Your task to perform on an android device: toggle data saver in the chrome app Image 0: 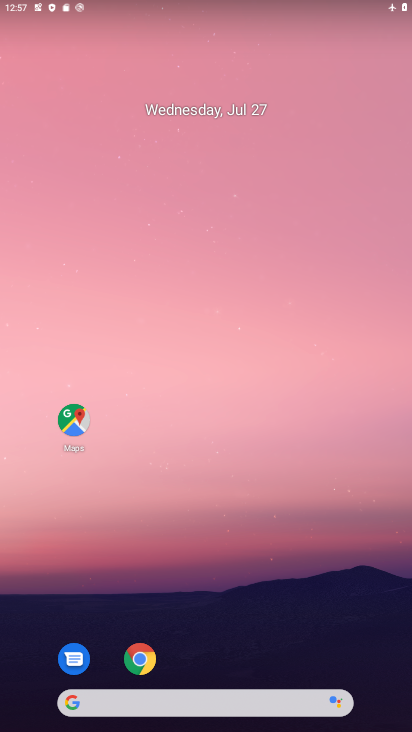
Step 0: click (186, 498)
Your task to perform on an android device: toggle data saver in the chrome app Image 1: 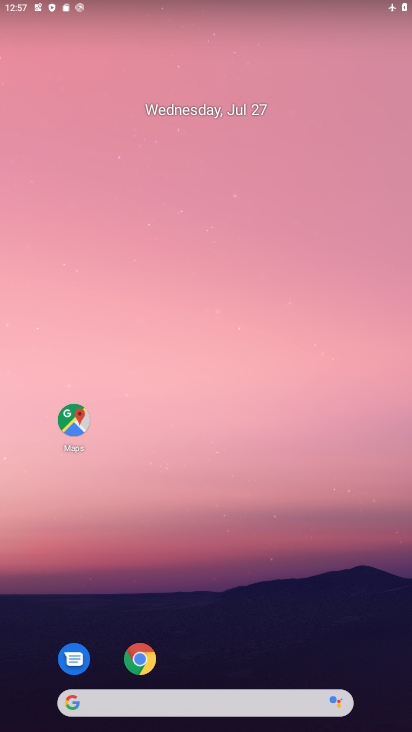
Step 1: click (302, 43)
Your task to perform on an android device: toggle data saver in the chrome app Image 2: 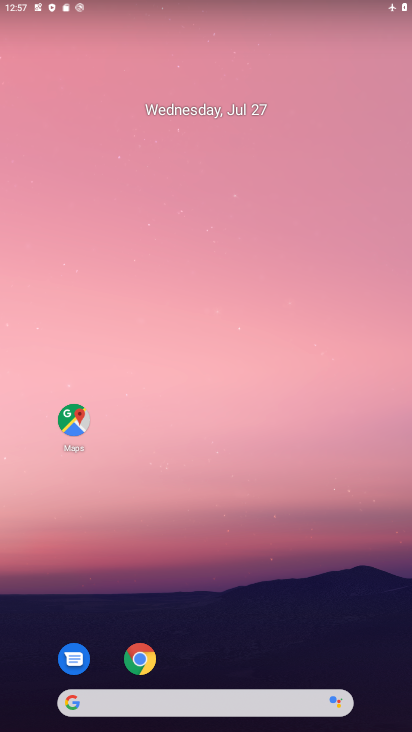
Step 2: drag from (216, 626) to (201, 73)
Your task to perform on an android device: toggle data saver in the chrome app Image 3: 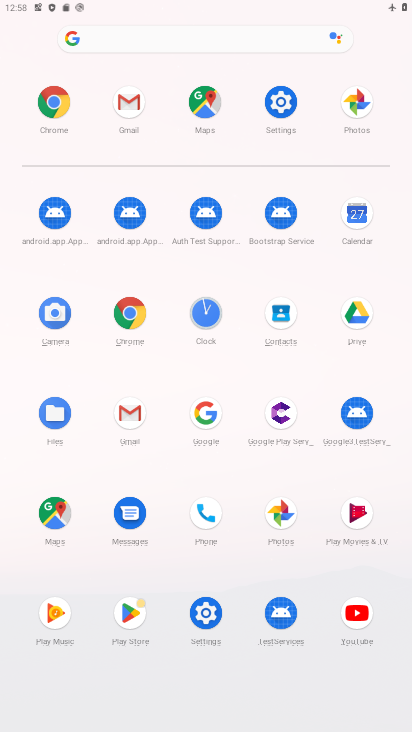
Step 3: click (135, 334)
Your task to perform on an android device: toggle data saver in the chrome app Image 4: 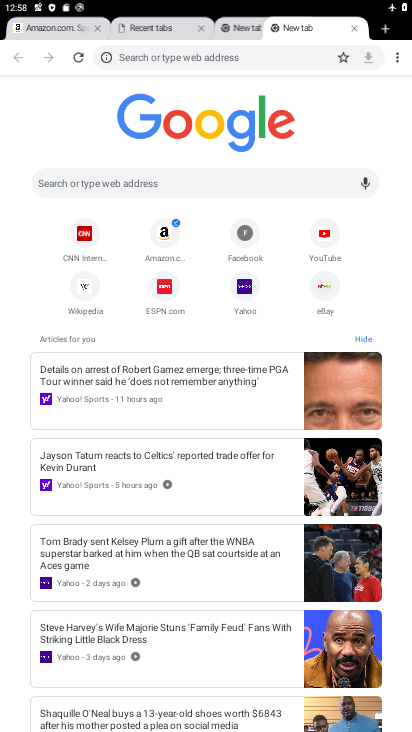
Step 4: click (399, 64)
Your task to perform on an android device: toggle data saver in the chrome app Image 5: 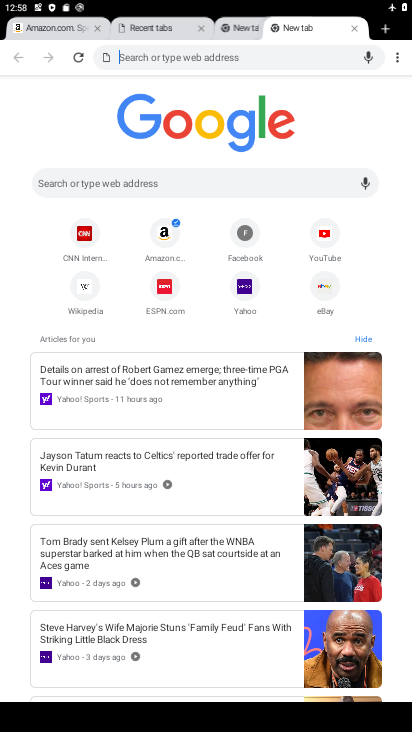
Step 5: click (400, 57)
Your task to perform on an android device: toggle data saver in the chrome app Image 6: 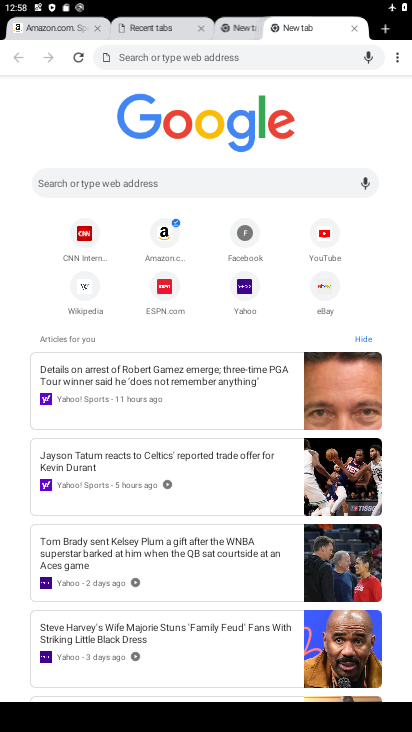
Step 6: click (400, 55)
Your task to perform on an android device: toggle data saver in the chrome app Image 7: 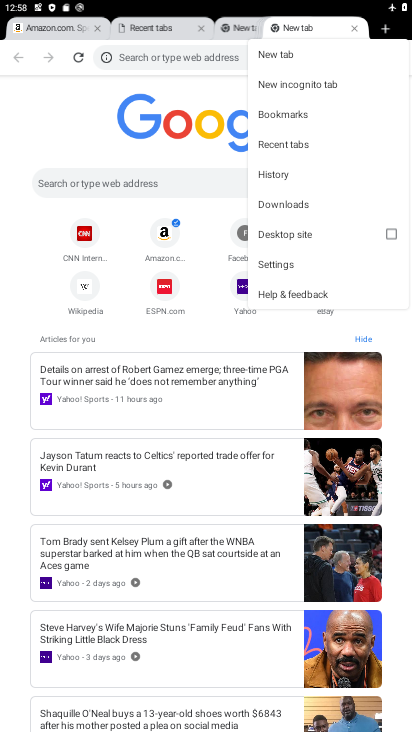
Step 7: click (291, 262)
Your task to perform on an android device: toggle data saver in the chrome app Image 8: 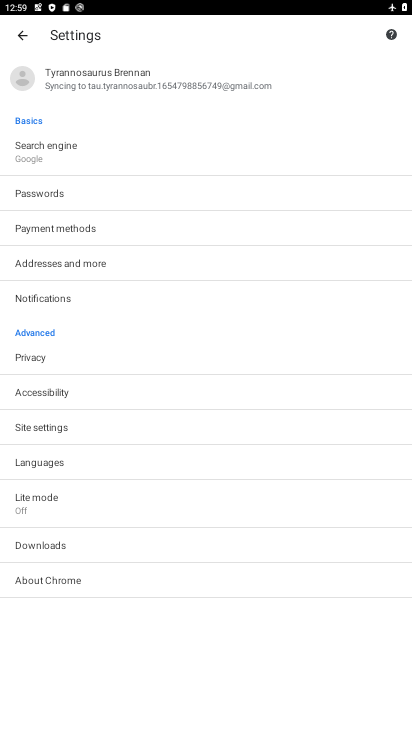
Step 8: click (130, 507)
Your task to perform on an android device: toggle data saver in the chrome app Image 9: 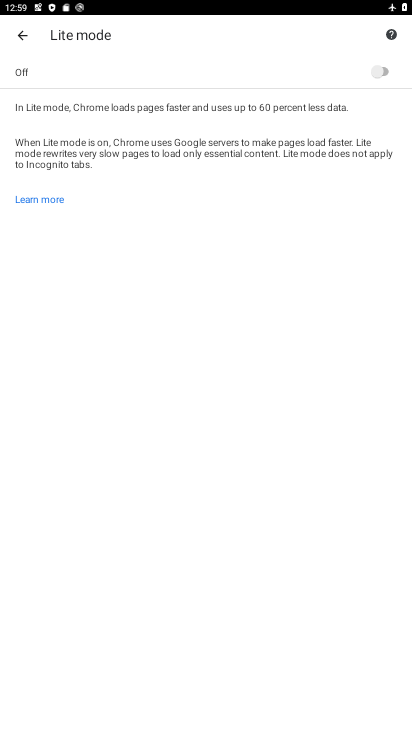
Step 9: click (381, 70)
Your task to perform on an android device: toggle data saver in the chrome app Image 10: 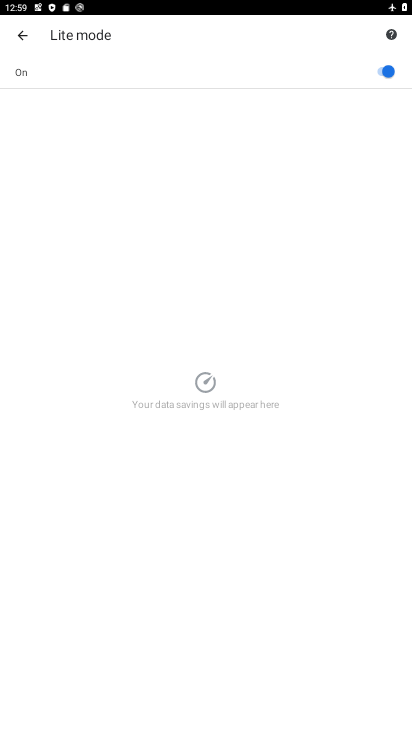
Step 10: task complete